Your task to perform on an android device: toggle sleep mode Image 0: 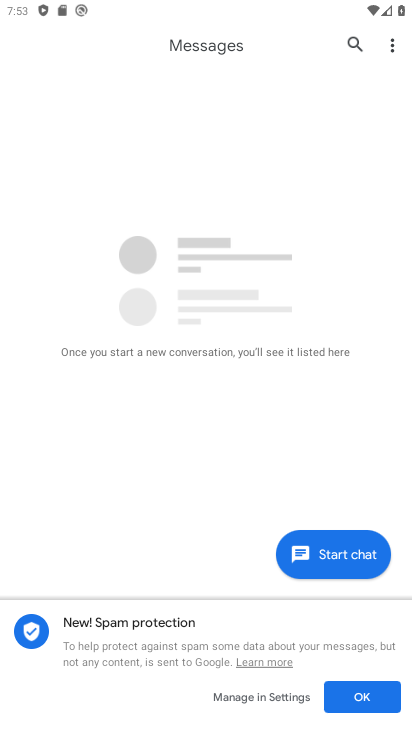
Step 0: press home button
Your task to perform on an android device: toggle sleep mode Image 1: 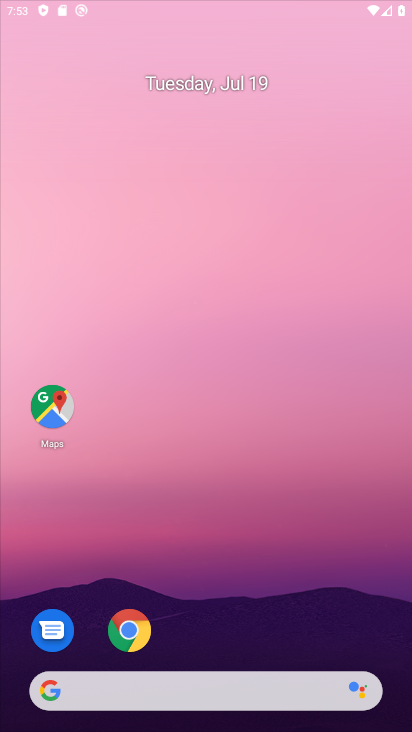
Step 1: drag from (227, 608) to (224, 160)
Your task to perform on an android device: toggle sleep mode Image 2: 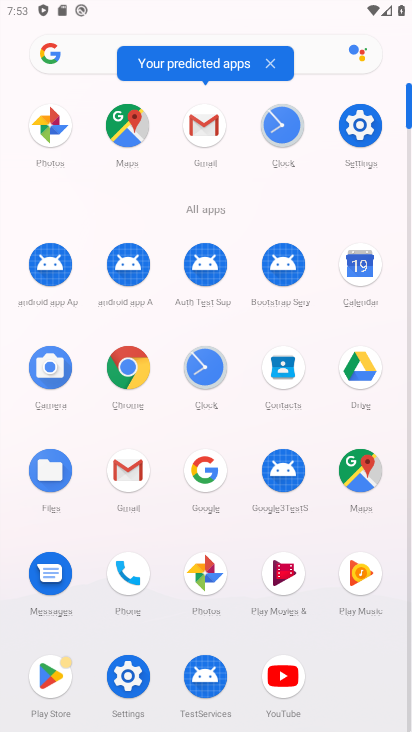
Step 2: click (358, 127)
Your task to perform on an android device: toggle sleep mode Image 3: 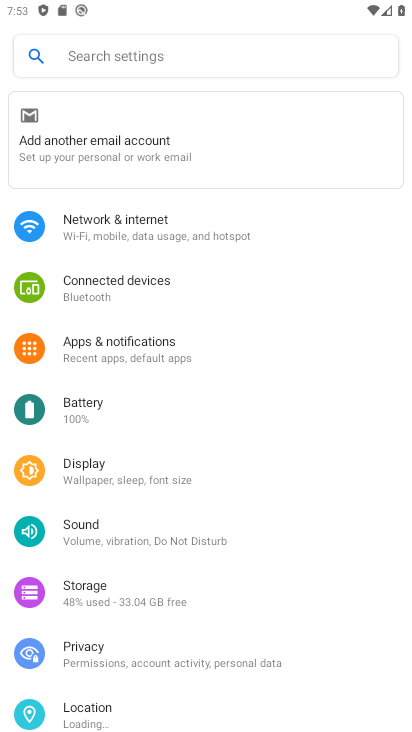
Step 3: click (147, 476)
Your task to perform on an android device: toggle sleep mode Image 4: 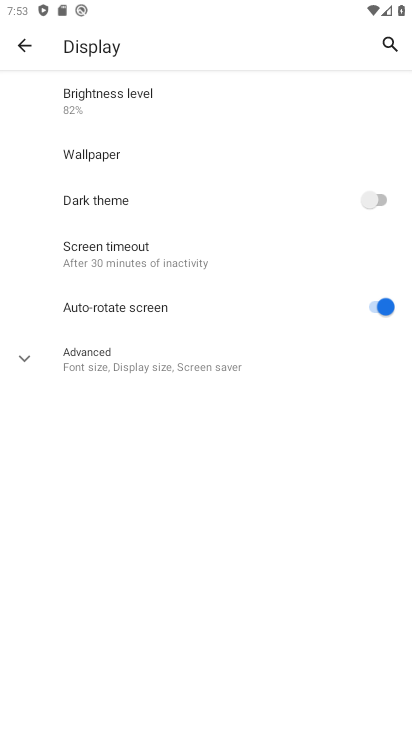
Step 4: click (119, 261)
Your task to perform on an android device: toggle sleep mode Image 5: 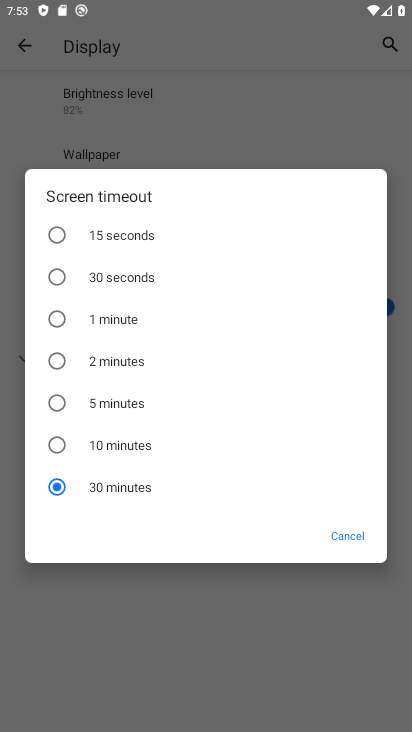
Step 5: click (59, 395)
Your task to perform on an android device: toggle sleep mode Image 6: 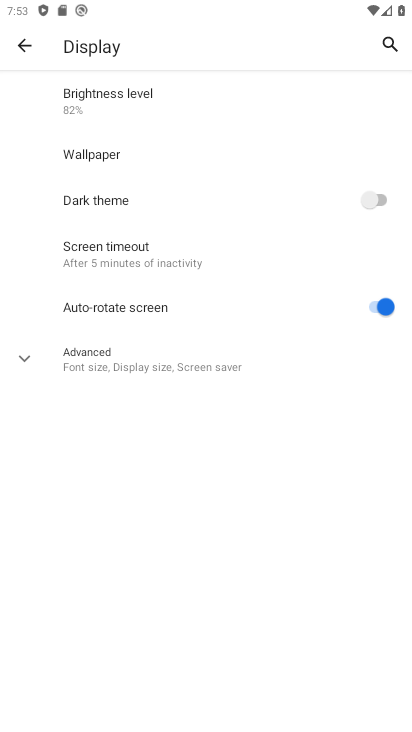
Step 6: task complete